Your task to perform on an android device: turn on data saver in the chrome app Image 0: 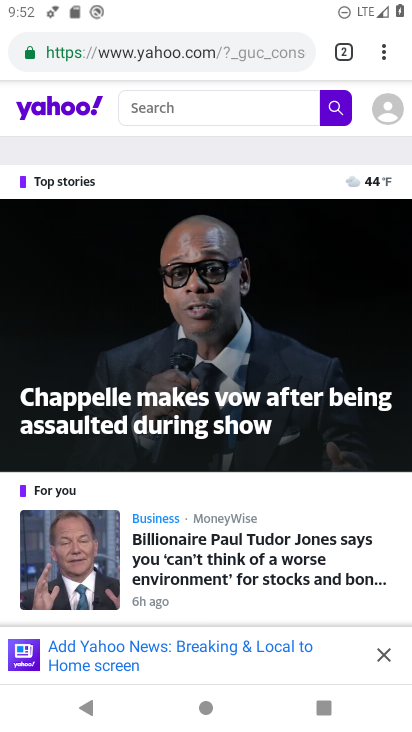
Step 0: drag from (383, 47) to (248, 574)
Your task to perform on an android device: turn on data saver in the chrome app Image 1: 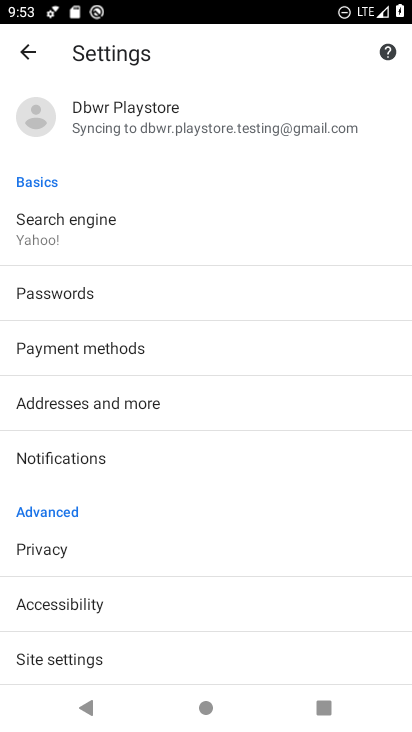
Step 1: drag from (151, 639) to (160, 429)
Your task to perform on an android device: turn on data saver in the chrome app Image 2: 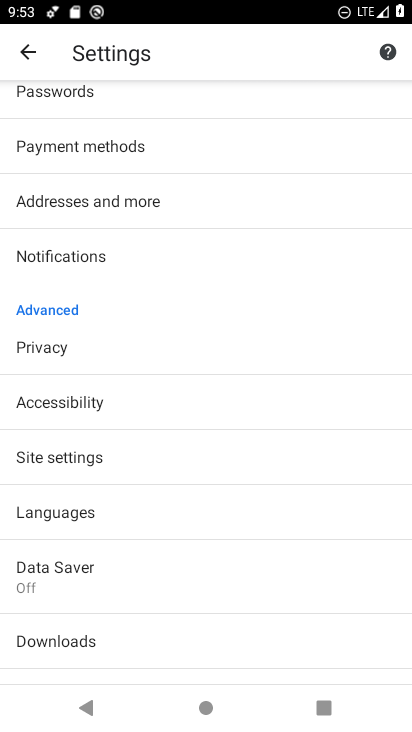
Step 2: click (56, 568)
Your task to perform on an android device: turn on data saver in the chrome app Image 3: 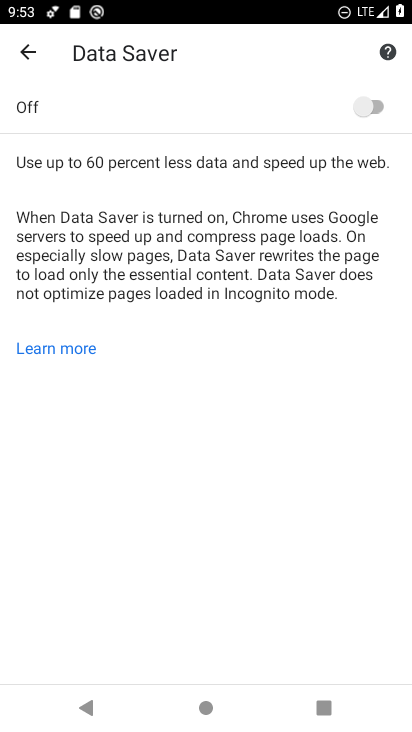
Step 3: click (381, 106)
Your task to perform on an android device: turn on data saver in the chrome app Image 4: 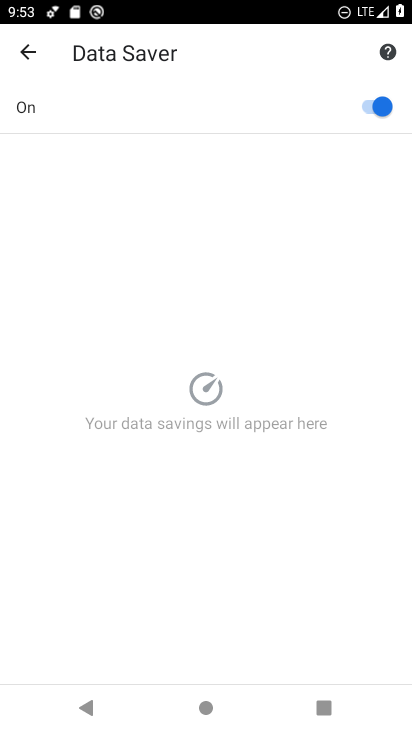
Step 4: task complete